Your task to perform on an android device: empty trash in the gmail app Image 0: 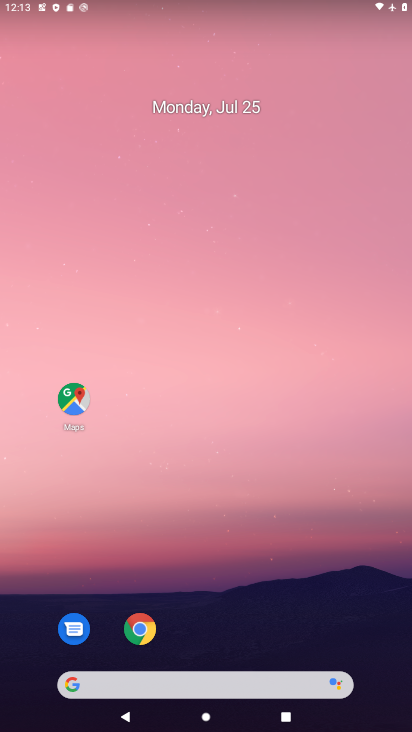
Step 0: drag from (249, 661) to (246, 6)
Your task to perform on an android device: empty trash in the gmail app Image 1: 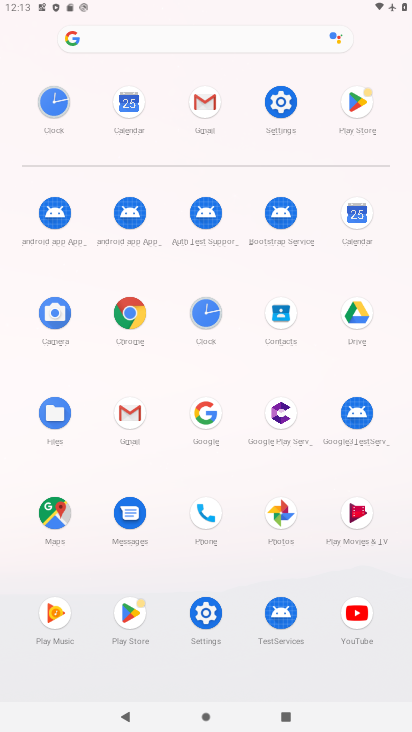
Step 1: click (140, 425)
Your task to perform on an android device: empty trash in the gmail app Image 2: 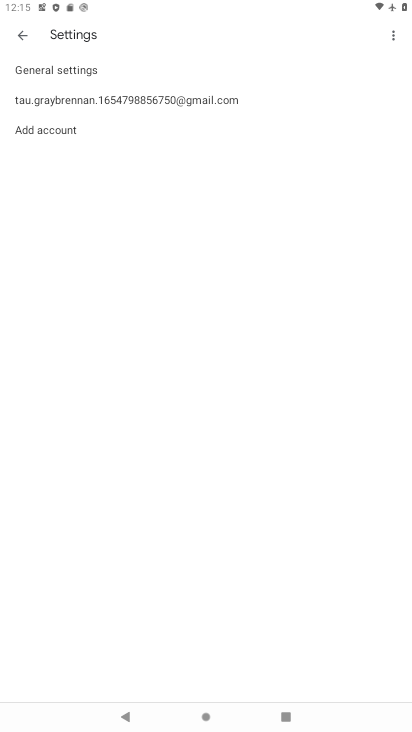
Step 2: task complete